Your task to perform on an android device: toggle show notifications on the lock screen Image 0: 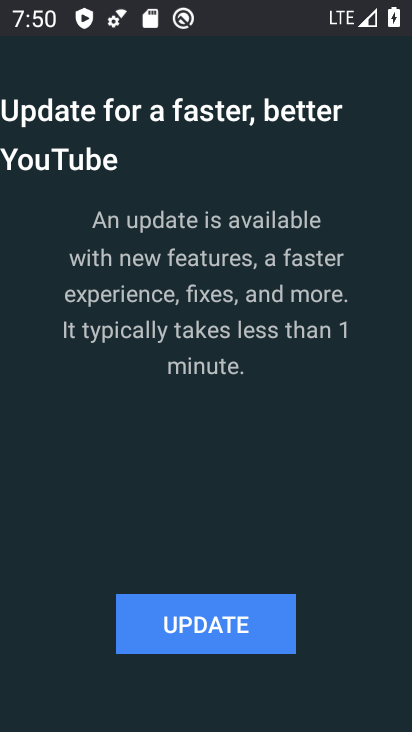
Step 0: press home button
Your task to perform on an android device: toggle show notifications on the lock screen Image 1: 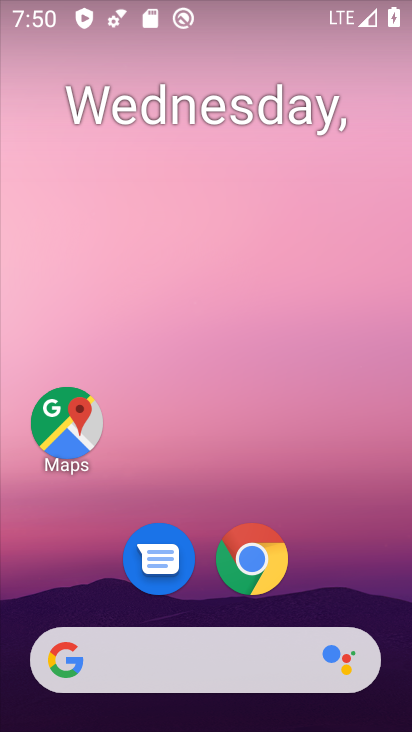
Step 1: drag from (262, 586) to (310, 89)
Your task to perform on an android device: toggle show notifications on the lock screen Image 2: 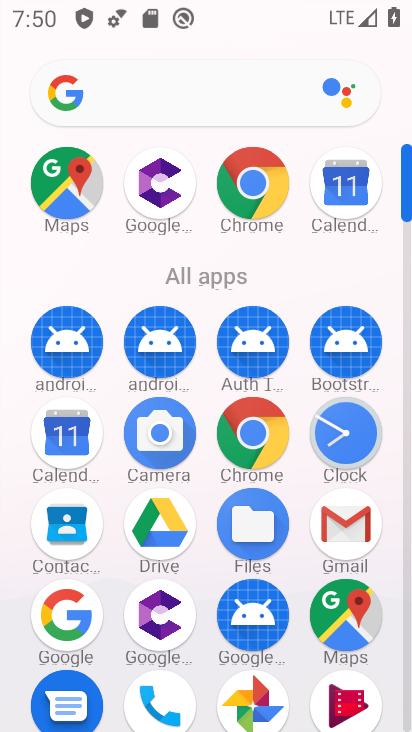
Step 2: drag from (183, 568) to (221, 102)
Your task to perform on an android device: toggle show notifications on the lock screen Image 3: 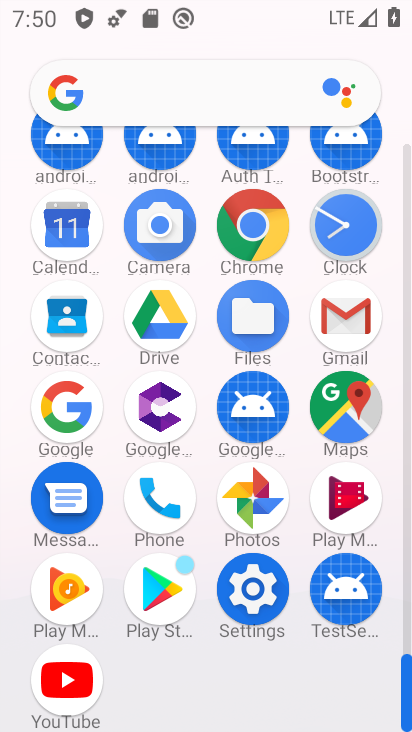
Step 3: click (258, 591)
Your task to perform on an android device: toggle show notifications on the lock screen Image 4: 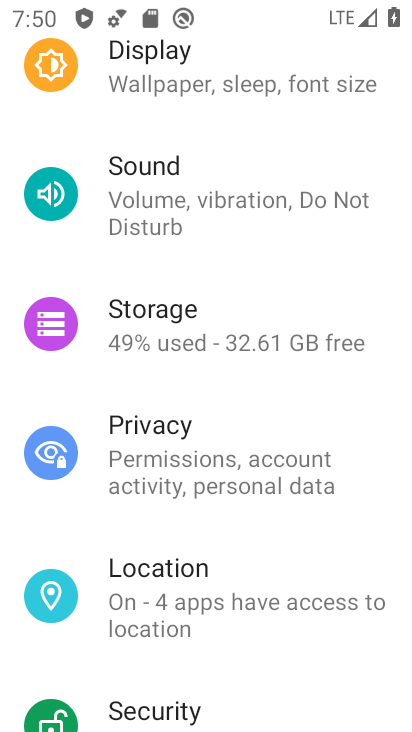
Step 4: drag from (258, 117) to (247, 637)
Your task to perform on an android device: toggle show notifications on the lock screen Image 5: 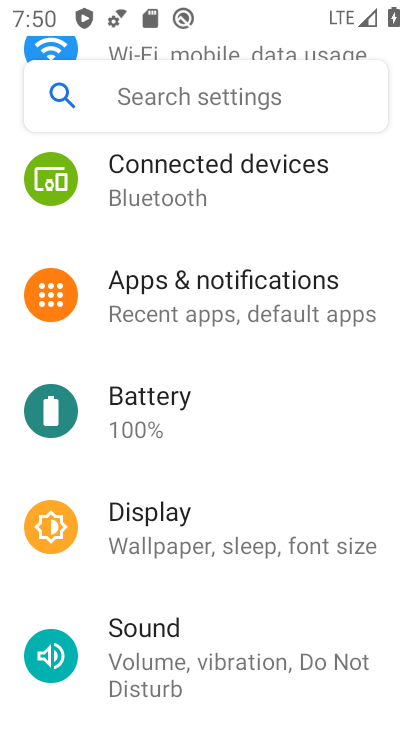
Step 5: click (210, 288)
Your task to perform on an android device: toggle show notifications on the lock screen Image 6: 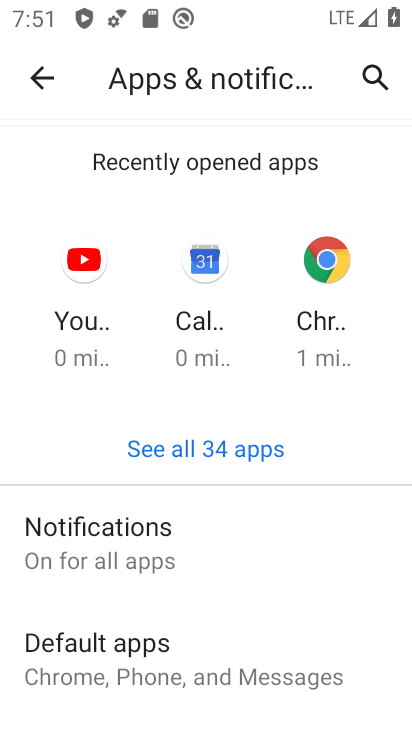
Step 6: click (101, 539)
Your task to perform on an android device: toggle show notifications on the lock screen Image 7: 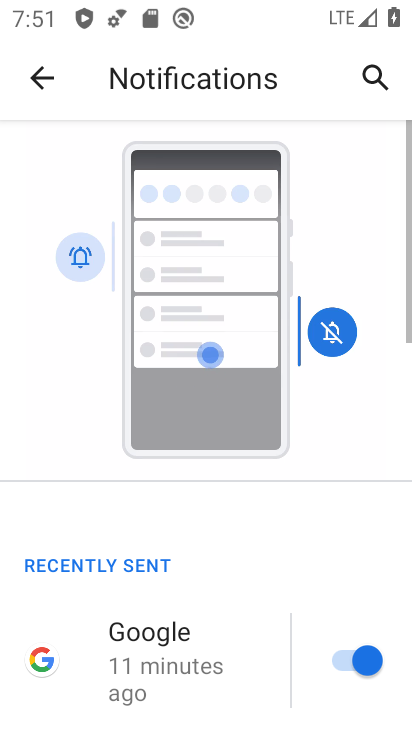
Step 7: drag from (125, 626) to (251, 171)
Your task to perform on an android device: toggle show notifications on the lock screen Image 8: 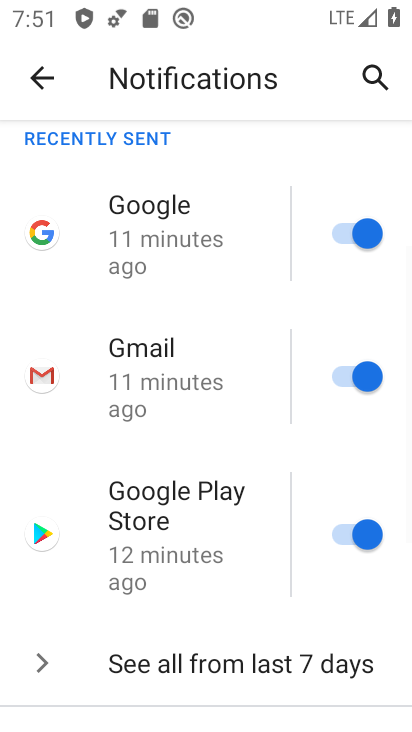
Step 8: drag from (160, 561) to (272, 29)
Your task to perform on an android device: toggle show notifications on the lock screen Image 9: 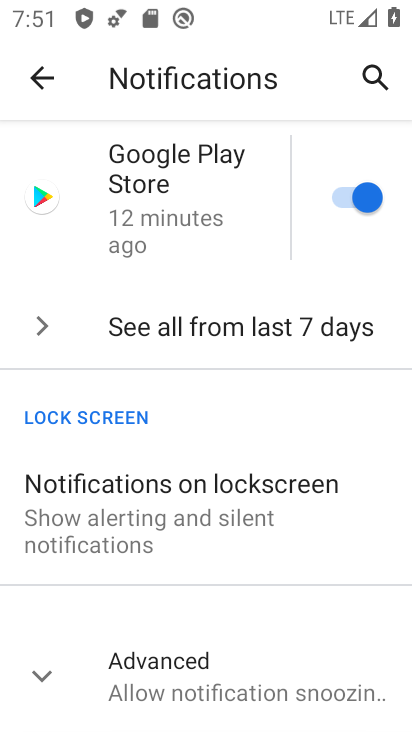
Step 9: click (135, 484)
Your task to perform on an android device: toggle show notifications on the lock screen Image 10: 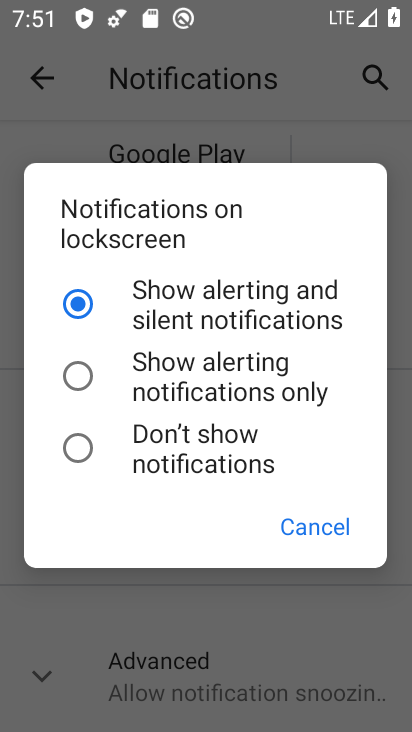
Step 10: click (81, 313)
Your task to perform on an android device: toggle show notifications on the lock screen Image 11: 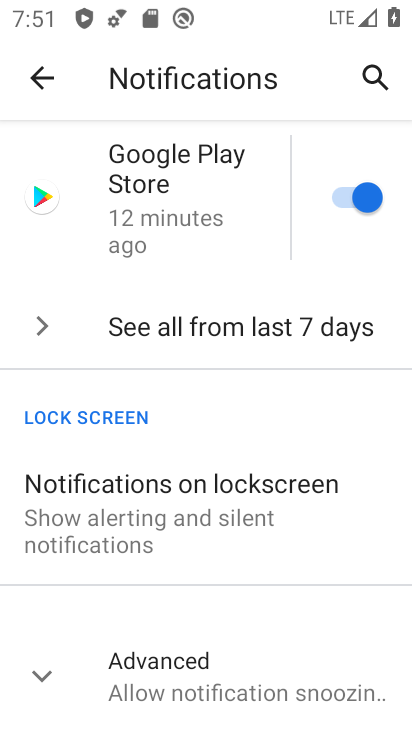
Step 11: task complete